Your task to perform on an android device: toggle priority inbox in the gmail app Image 0: 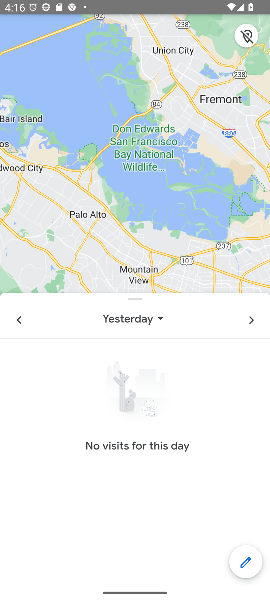
Step 0: press home button
Your task to perform on an android device: toggle priority inbox in the gmail app Image 1: 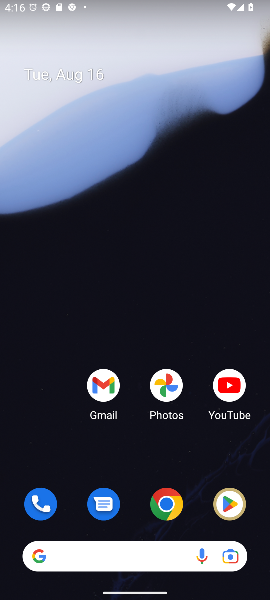
Step 1: click (101, 385)
Your task to perform on an android device: toggle priority inbox in the gmail app Image 2: 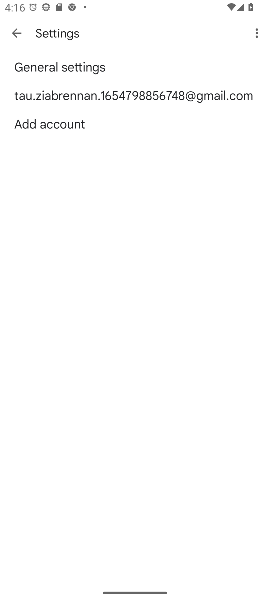
Step 2: click (51, 96)
Your task to perform on an android device: toggle priority inbox in the gmail app Image 3: 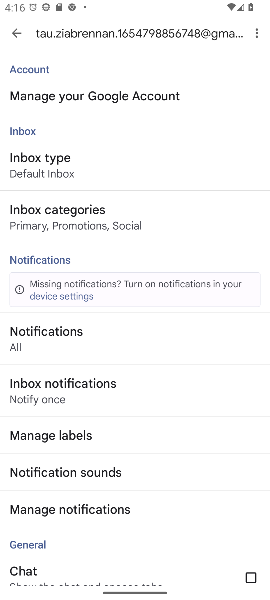
Step 3: click (37, 166)
Your task to perform on an android device: toggle priority inbox in the gmail app Image 4: 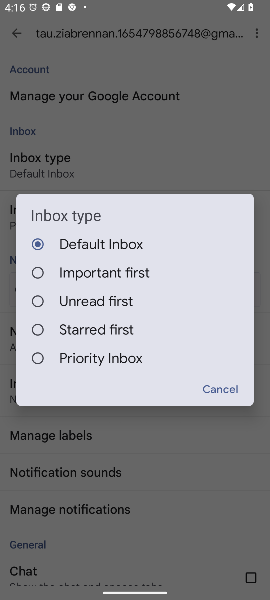
Step 4: click (38, 356)
Your task to perform on an android device: toggle priority inbox in the gmail app Image 5: 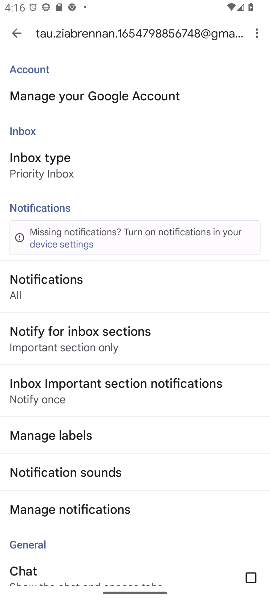
Step 5: task complete